Your task to perform on an android device: set default search engine in the chrome app Image 0: 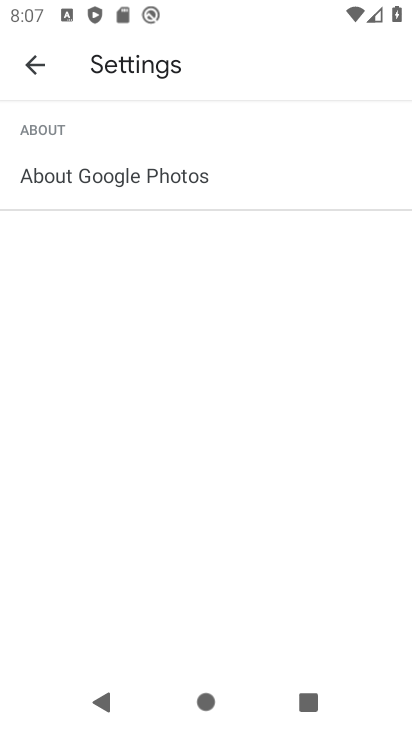
Step 0: press home button
Your task to perform on an android device: set default search engine in the chrome app Image 1: 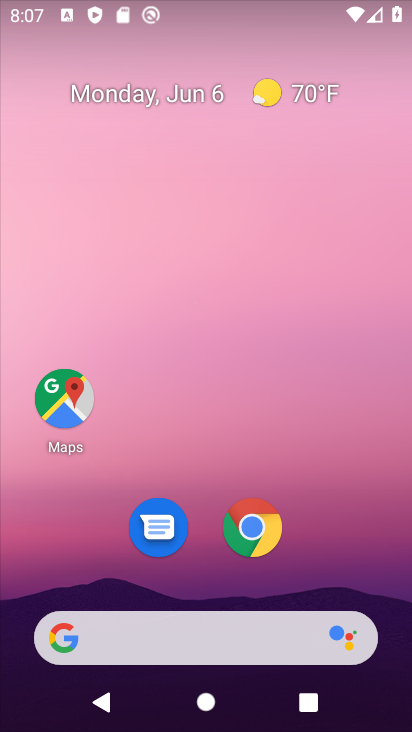
Step 1: click (264, 547)
Your task to perform on an android device: set default search engine in the chrome app Image 2: 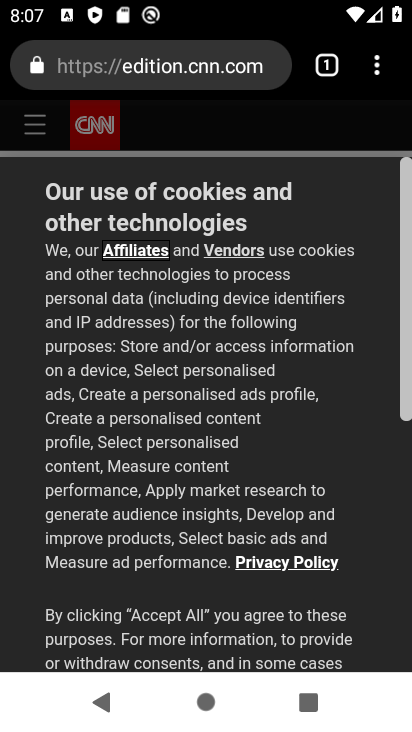
Step 2: click (388, 67)
Your task to perform on an android device: set default search engine in the chrome app Image 3: 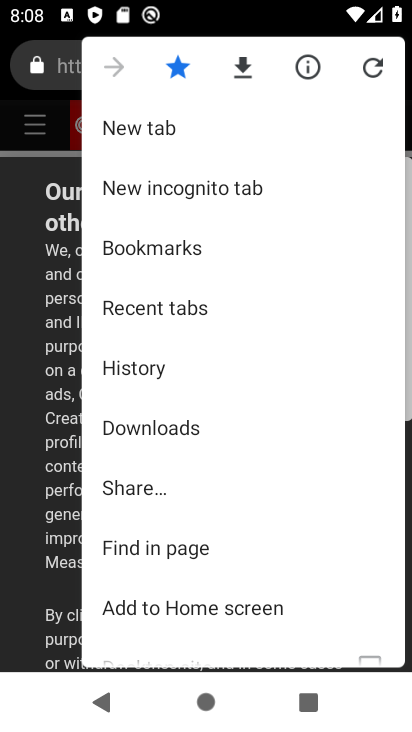
Step 3: drag from (167, 521) to (229, 162)
Your task to perform on an android device: set default search engine in the chrome app Image 4: 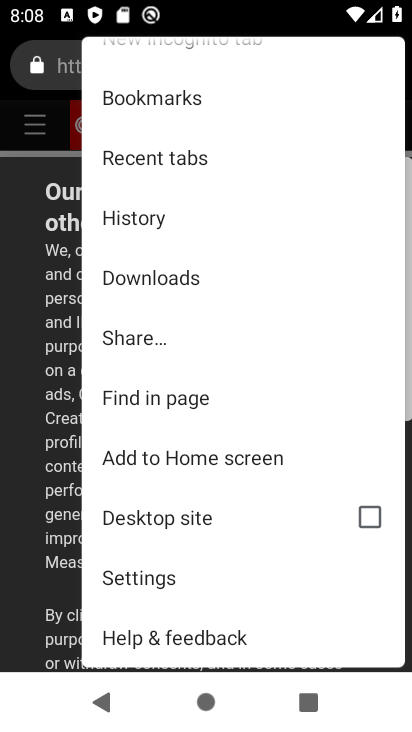
Step 4: click (163, 585)
Your task to perform on an android device: set default search engine in the chrome app Image 5: 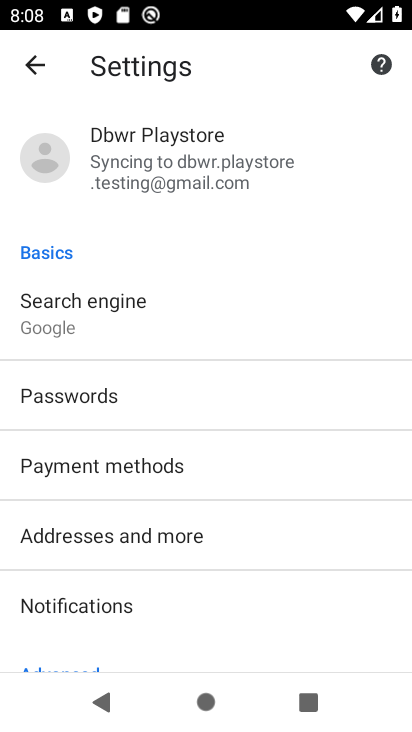
Step 5: click (108, 307)
Your task to perform on an android device: set default search engine in the chrome app Image 6: 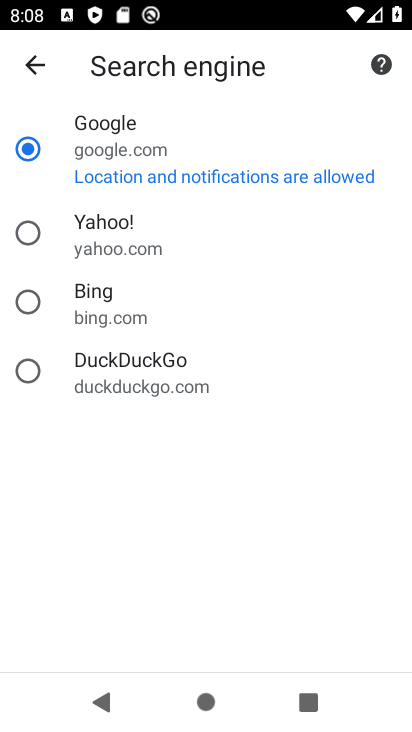
Step 6: task complete